Your task to perform on an android device: refresh tabs in the chrome app Image 0: 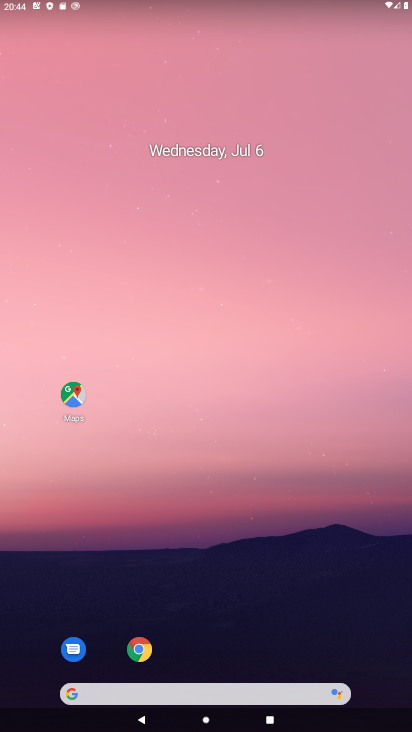
Step 0: click (140, 649)
Your task to perform on an android device: refresh tabs in the chrome app Image 1: 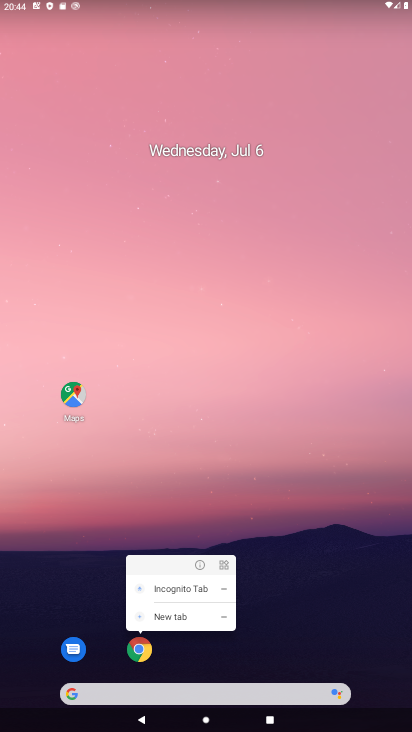
Step 1: click (146, 650)
Your task to perform on an android device: refresh tabs in the chrome app Image 2: 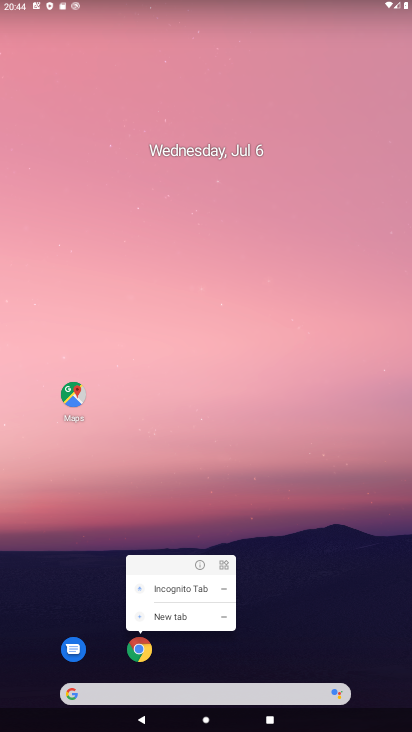
Step 2: click (141, 649)
Your task to perform on an android device: refresh tabs in the chrome app Image 3: 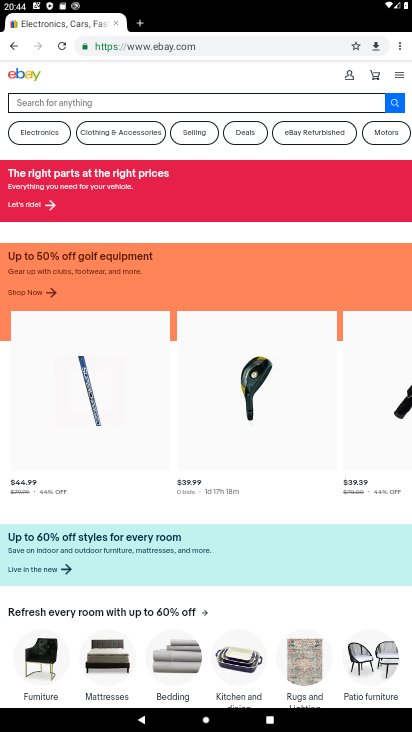
Step 3: click (395, 57)
Your task to perform on an android device: refresh tabs in the chrome app Image 4: 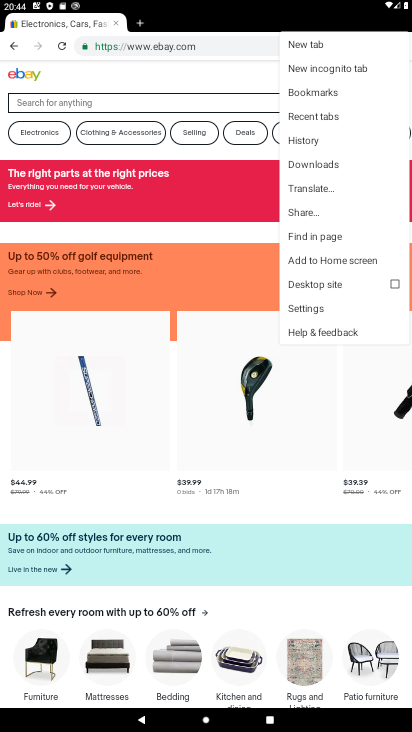
Step 4: click (410, 34)
Your task to perform on an android device: refresh tabs in the chrome app Image 5: 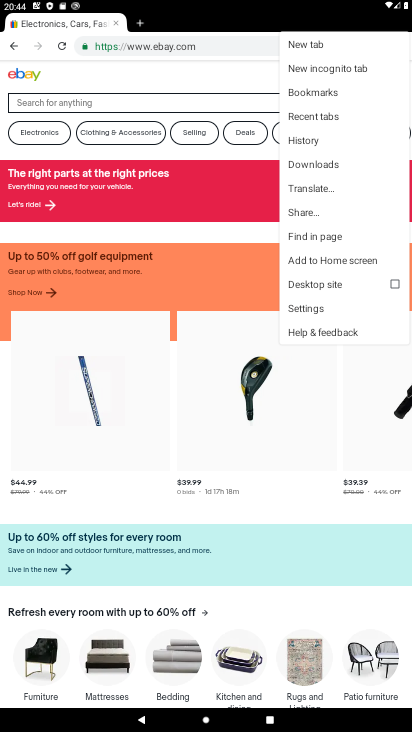
Step 5: click (408, 36)
Your task to perform on an android device: refresh tabs in the chrome app Image 6: 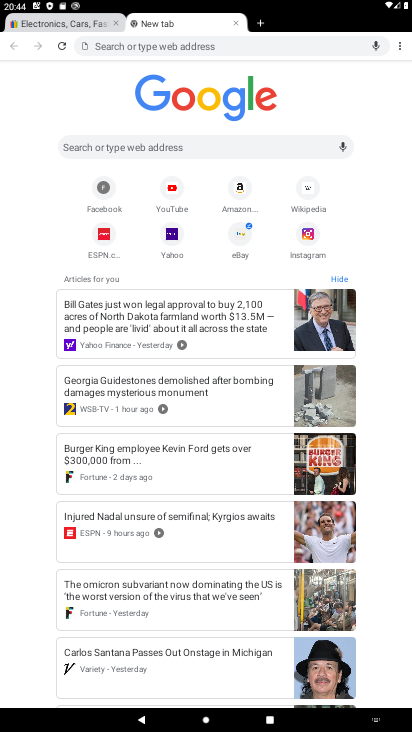
Step 6: click (236, 22)
Your task to perform on an android device: refresh tabs in the chrome app Image 7: 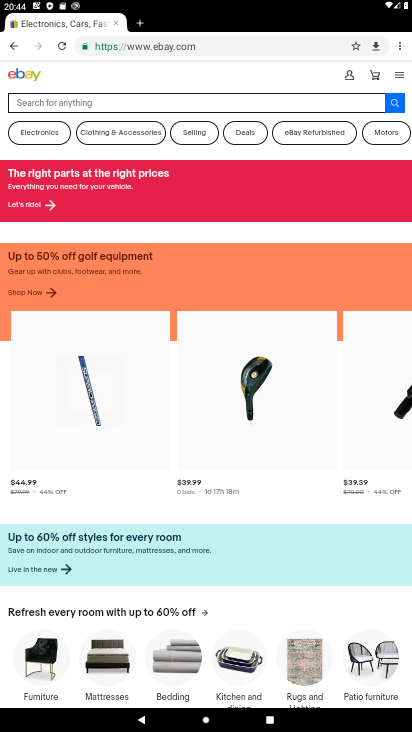
Step 7: task complete